Your task to perform on an android device: turn on location history Image 0: 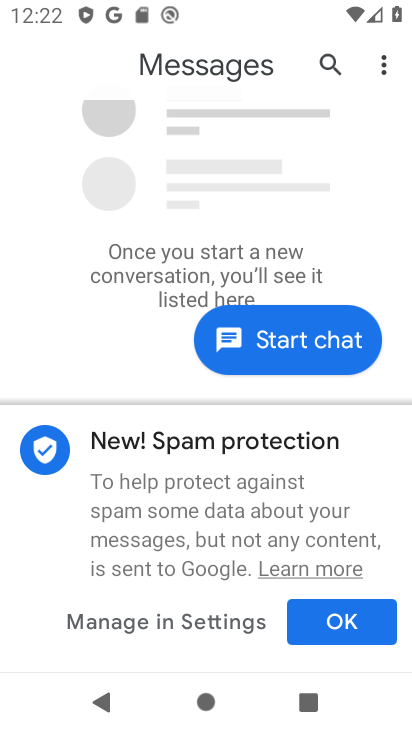
Step 0: press home button
Your task to perform on an android device: turn on location history Image 1: 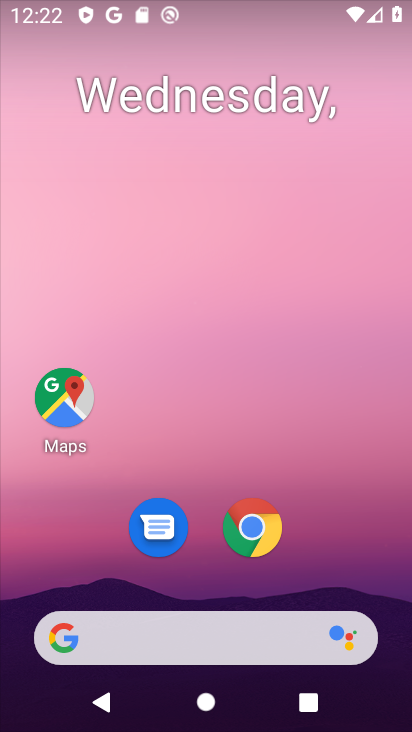
Step 1: click (59, 403)
Your task to perform on an android device: turn on location history Image 2: 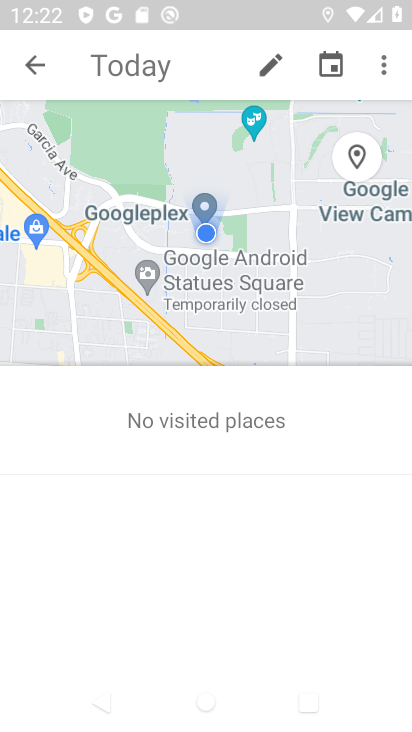
Step 2: click (378, 69)
Your task to perform on an android device: turn on location history Image 3: 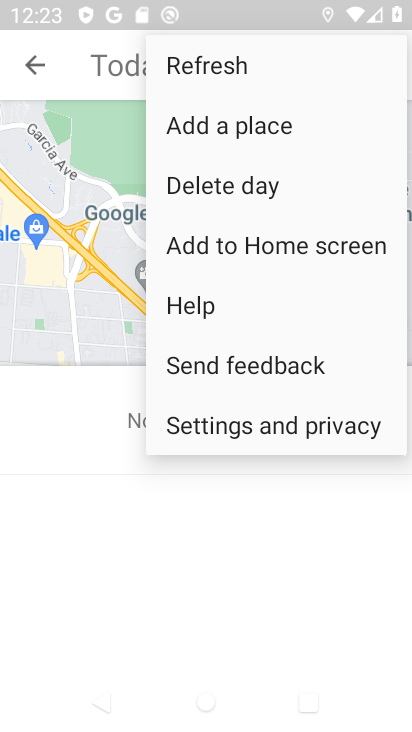
Step 3: click (301, 424)
Your task to perform on an android device: turn on location history Image 4: 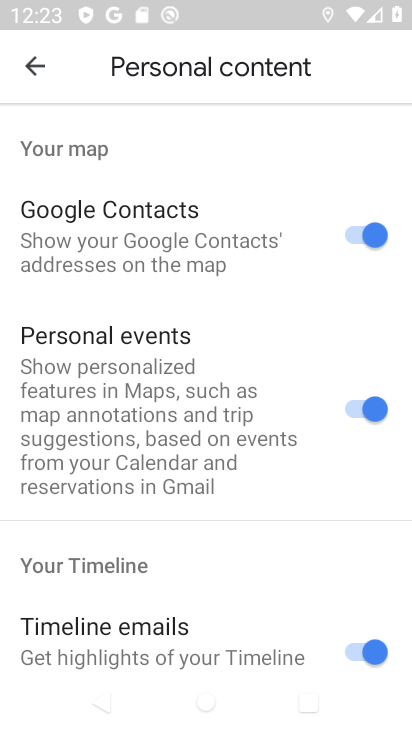
Step 4: drag from (276, 634) to (216, 178)
Your task to perform on an android device: turn on location history Image 5: 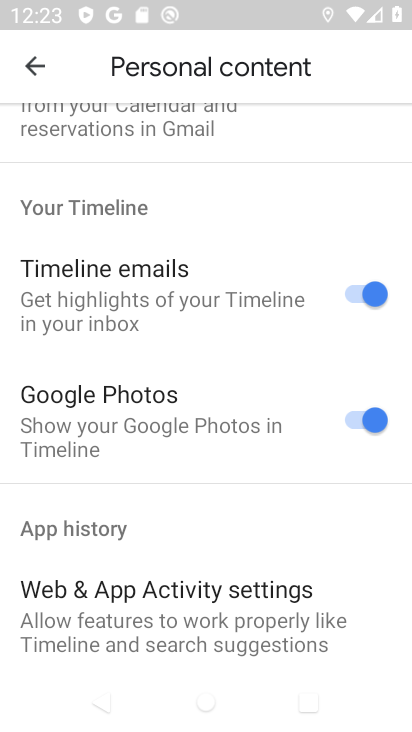
Step 5: drag from (248, 539) to (202, 221)
Your task to perform on an android device: turn on location history Image 6: 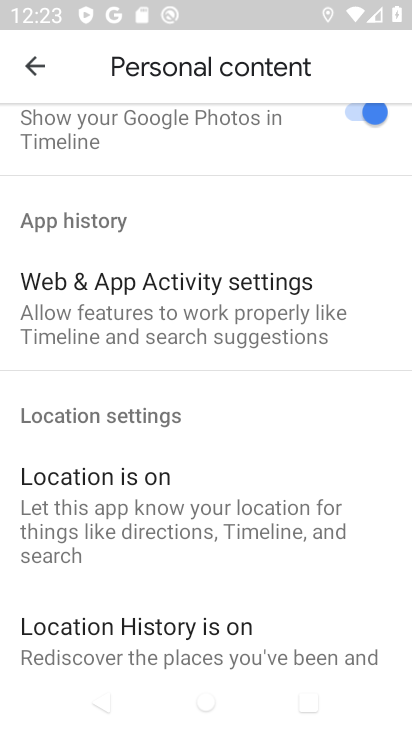
Step 6: drag from (218, 576) to (189, 358)
Your task to perform on an android device: turn on location history Image 7: 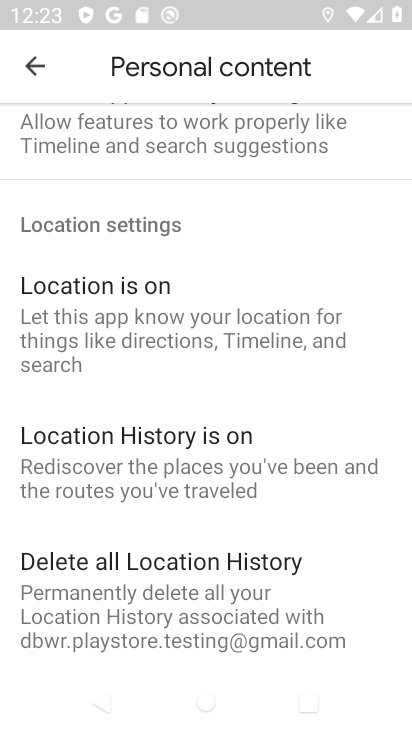
Step 7: click (209, 452)
Your task to perform on an android device: turn on location history Image 8: 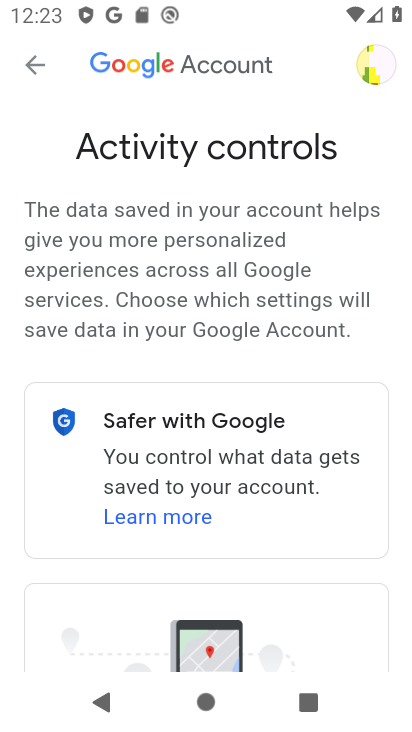
Step 8: task complete